Your task to perform on an android device: check data usage Image 0: 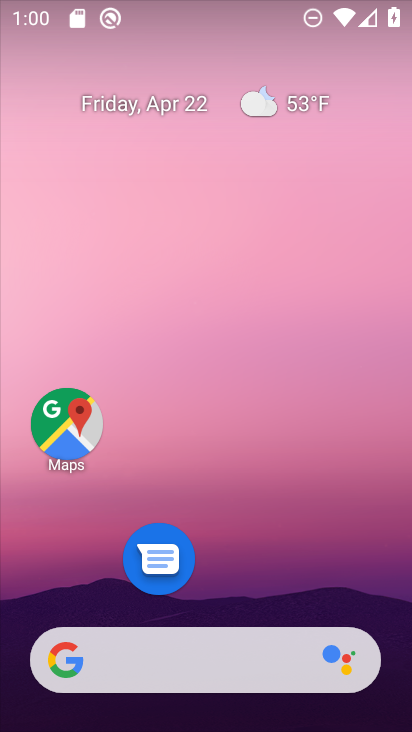
Step 0: drag from (211, 723) to (211, 134)
Your task to perform on an android device: check data usage Image 1: 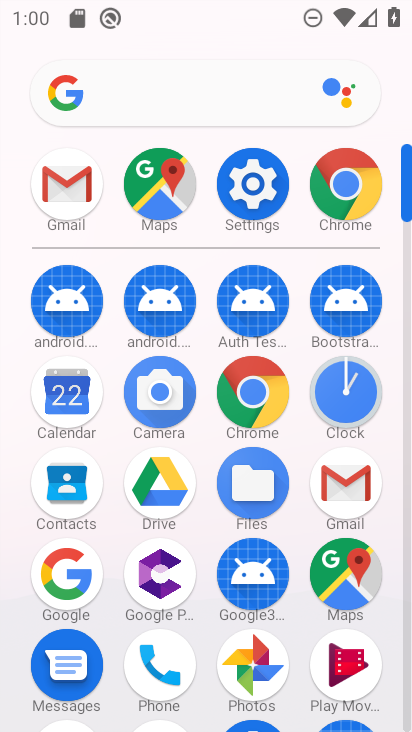
Step 1: click (265, 189)
Your task to perform on an android device: check data usage Image 2: 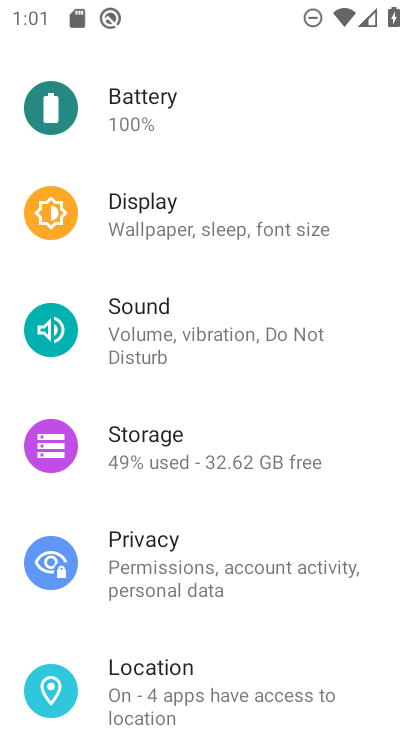
Step 2: drag from (233, 173) to (193, 563)
Your task to perform on an android device: check data usage Image 3: 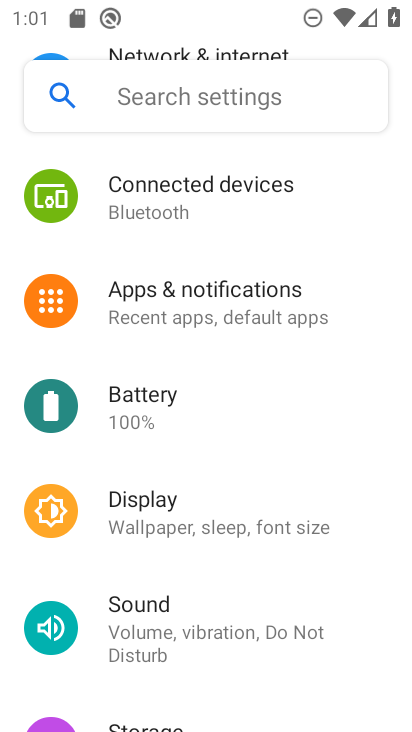
Step 3: drag from (217, 165) to (212, 550)
Your task to perform on an android device: check data usage Image 4: 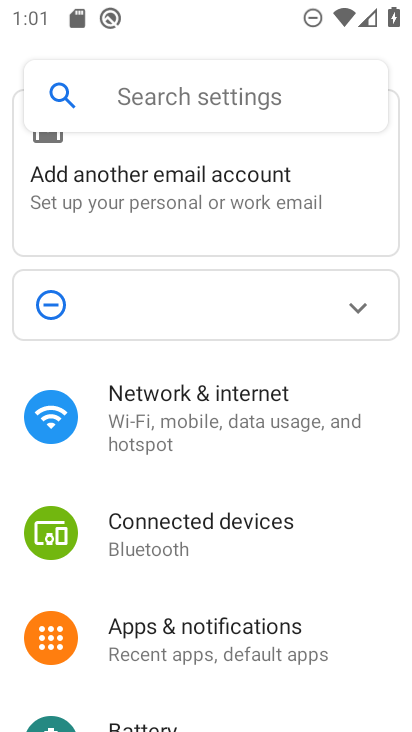
Step 4: click (178, 416)
Your task to perform on an android device: check data usage Image 5: 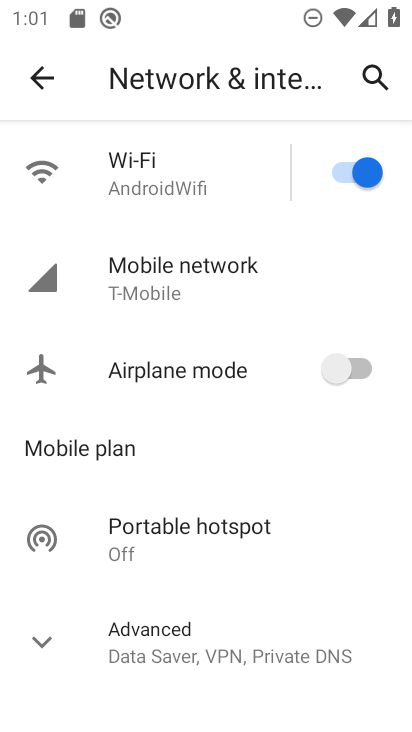
Step 5: click (147, 265)
Your task to perform on an android device: check data usage Image 6: 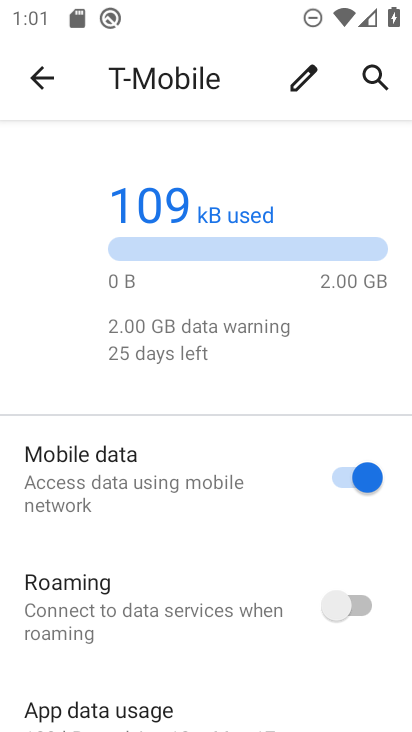
Step 6: drag from (173, 694) to (162, 244)
Your task to perform on an android device: check data usage Image 7: 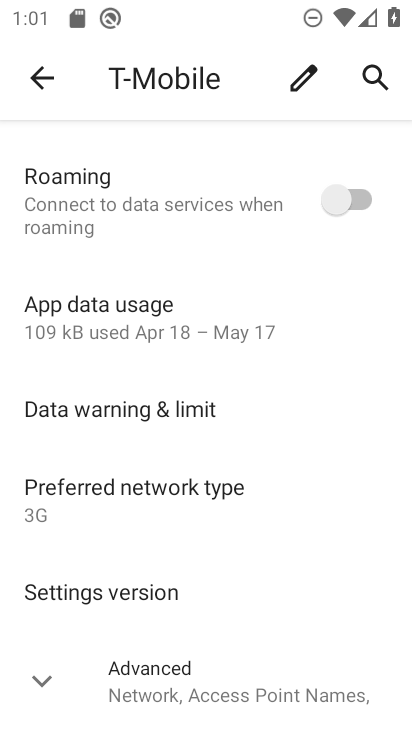
Step 7: click (113, 324)
Your task to perform on an android device: check data usage Image 8: 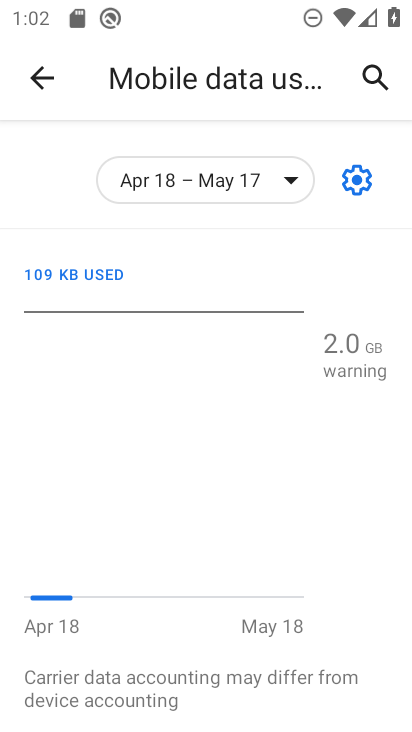
Step 8: task complete